Your task to perform on an android device: Search for sushi restaurants on Maps Image 0: 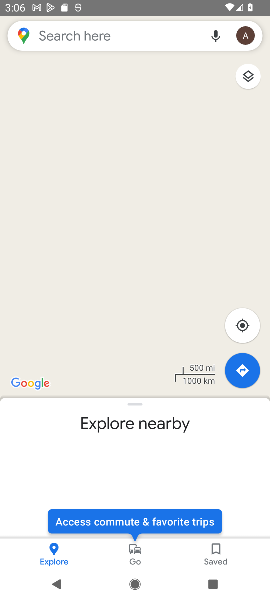
Step 0: press home button
Your task to perform on an android device: Search for sushi restaurants on Maps Image 1: 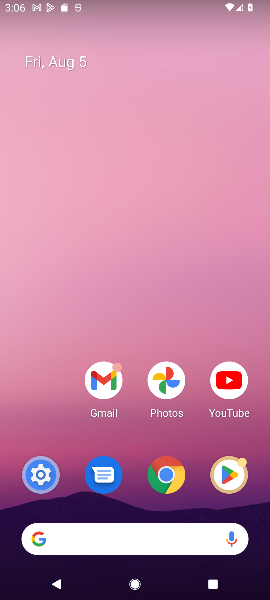
Step 1: drag from (61, 444) to (79, 184)
Your task to perform on an android device: Search for sushi restaurants on Maps Image 2: 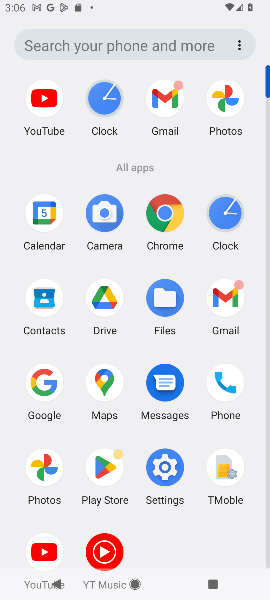
Step 2: click (105, 388)
Your task to perform on an android device: Search for sushi restaurants on Maps Image 3: 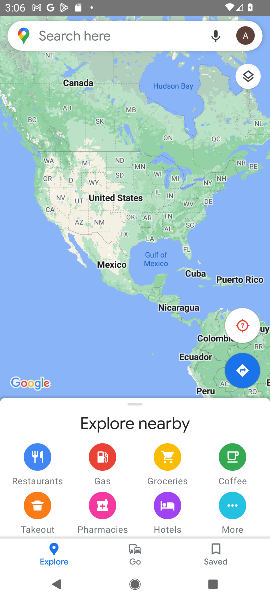
Step 3: click (115, 27)
Your task to perform on an android device: Search for sushi restaurants on Maps Image 4: 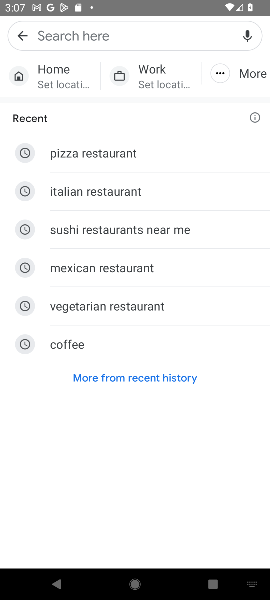
Step 4: type "sushi restaurants"
Your task to perform on an android device: Search for sushi restaurants on Maps Image 5: 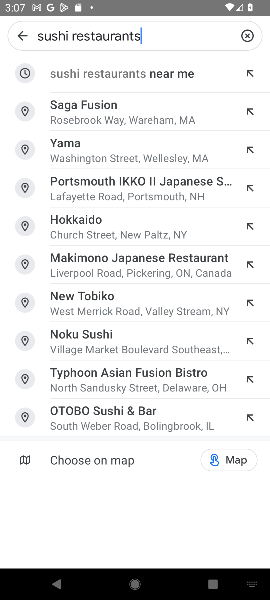
Step 5: click (133, 73)
Your task to perform on an android device: Search for sushi restaurants on Maps Image 6: 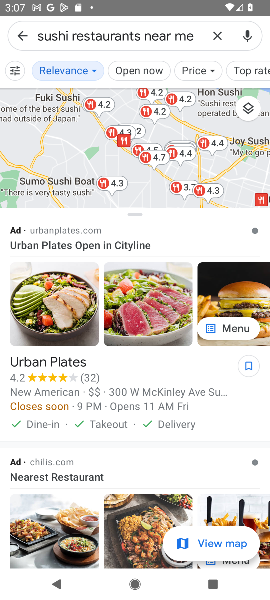
Step 6: task complete